Your task to perform on an android device: open app "Gmail" Image 0: 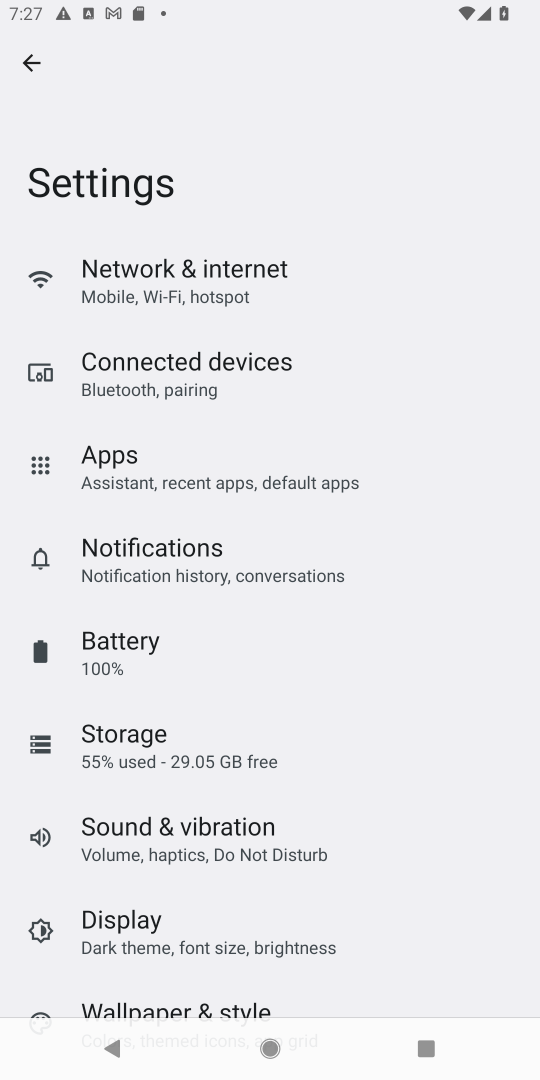
Step 0: press home button
Your task to perform on an android device: open app "Gmail" Image 1: 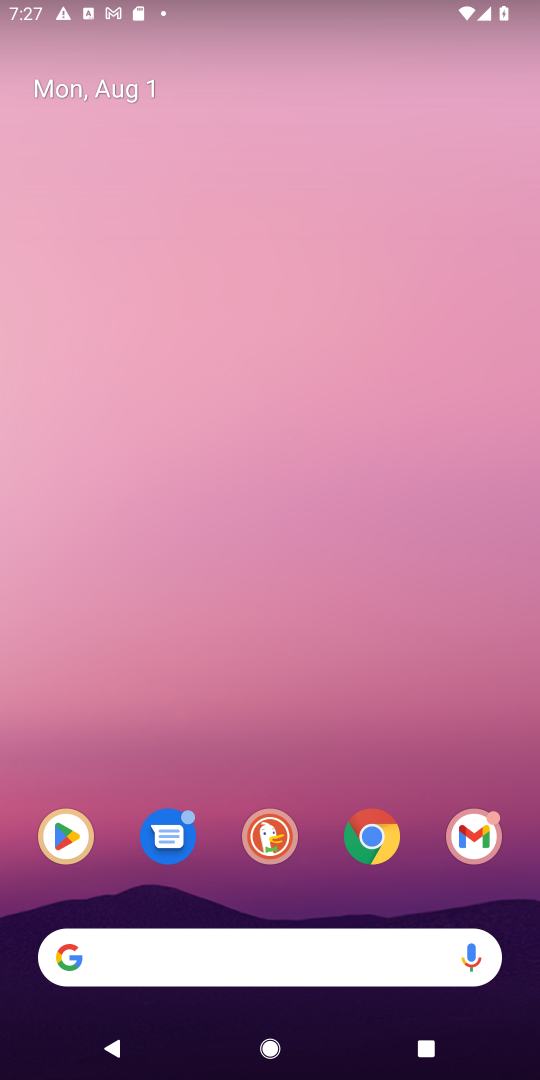
Step 1: click (73, 845)
Your task to perform on an android device: open app "Gmail" Image 2: 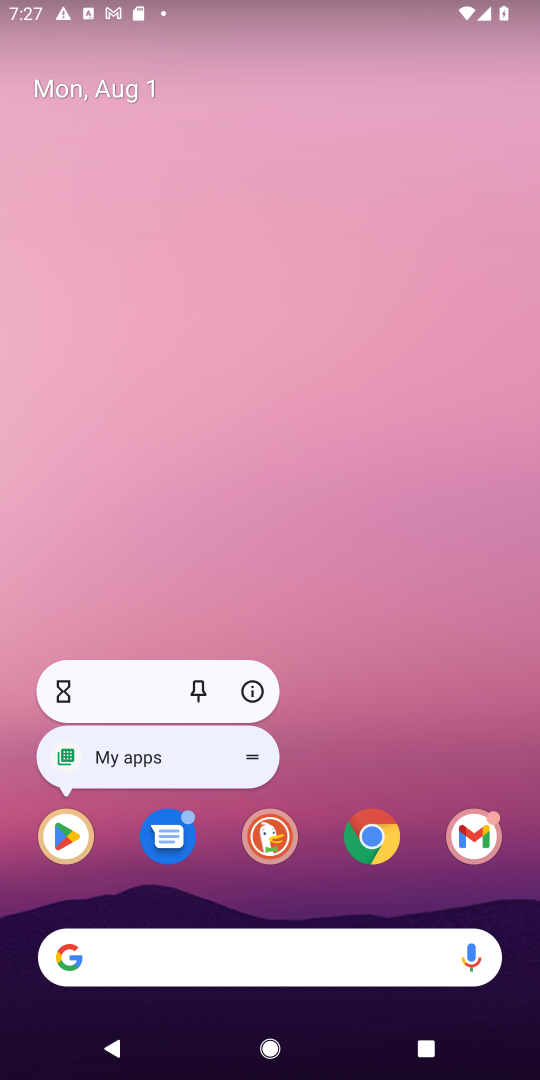
Step 2: click (56, 823)
Your task to perform on an android device: open app "Gmail" Image 3: 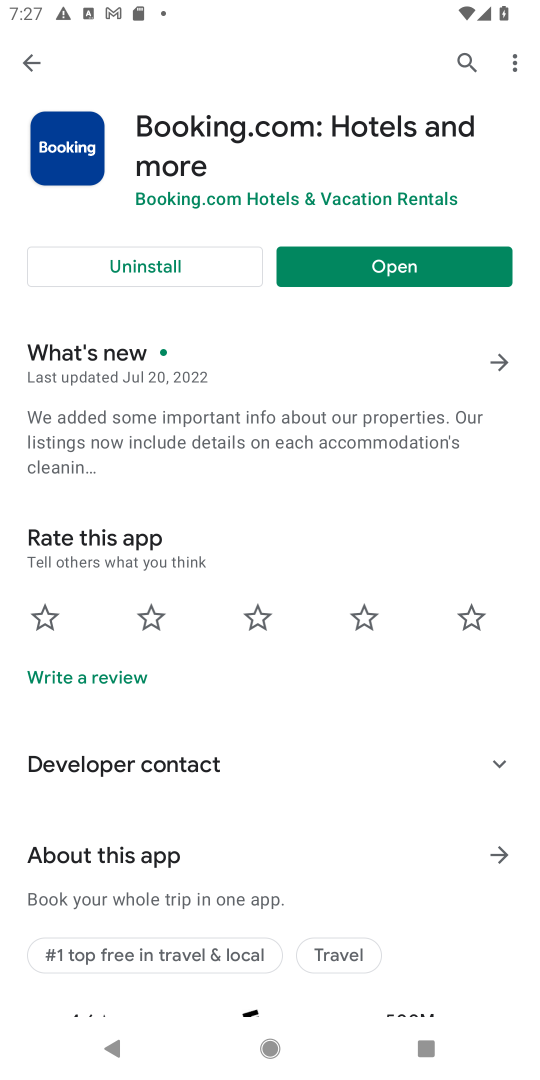
Step 3: click (463, 61)
Your task to perform on an android device: open app "Gmail" Image 4: 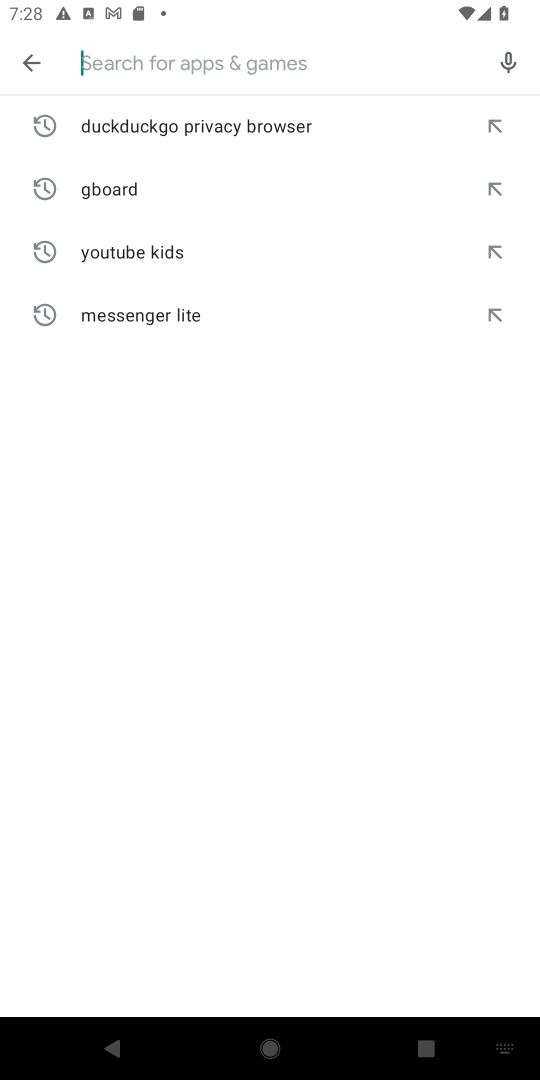
Step 4: type "Gmail"
Your task to perform on an android device: open app "Gmail" Image 5: 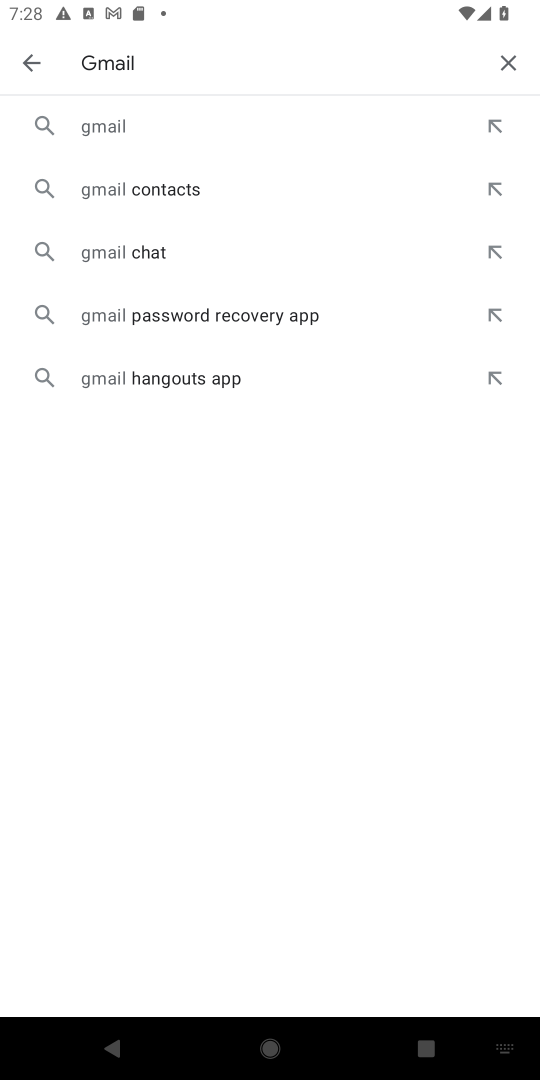
Step 5: click (118, 125)
Your task to perform on an android device: open app "Gmail" Image 6: 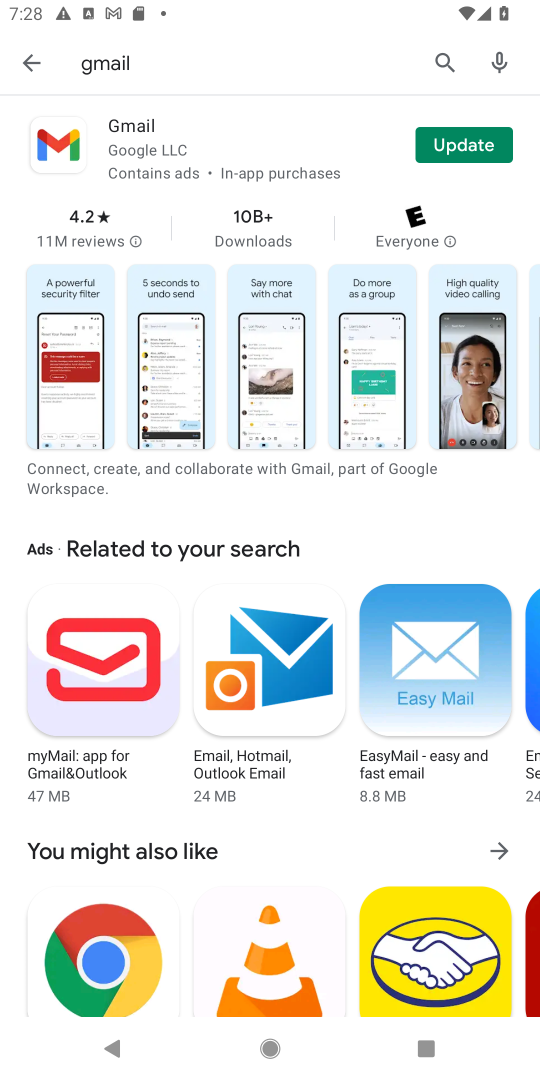
Step 6: click (143, 151)
Your task to perform on an android device: open app "Gmail" Image 7: 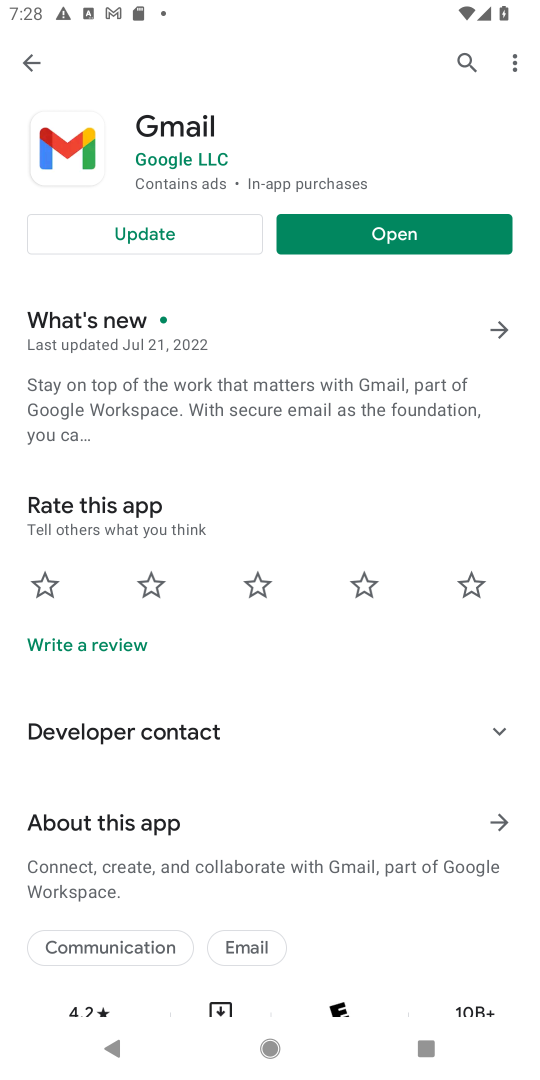
Step 7: click (392, 235)
Your task to perform on an android device: open app "Gmail" Image 8: 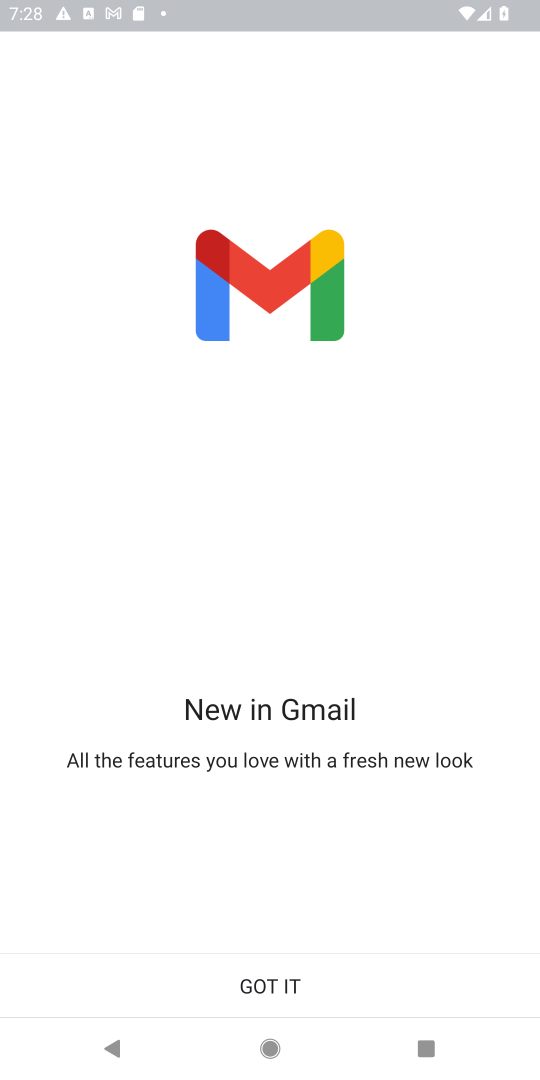
Step 8: task complete